Your task to perform on an android device: toggle data saver in the chrome app Image 0: 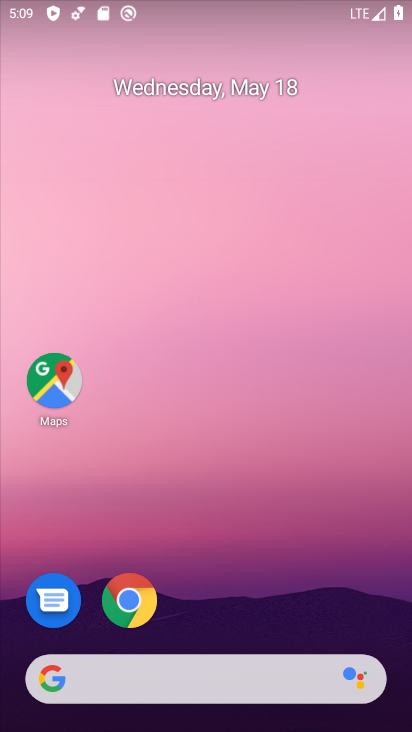
Step 0: click (130, 601)
Your task to perform on an android device: toggle data saver in the chrome app Image 1: 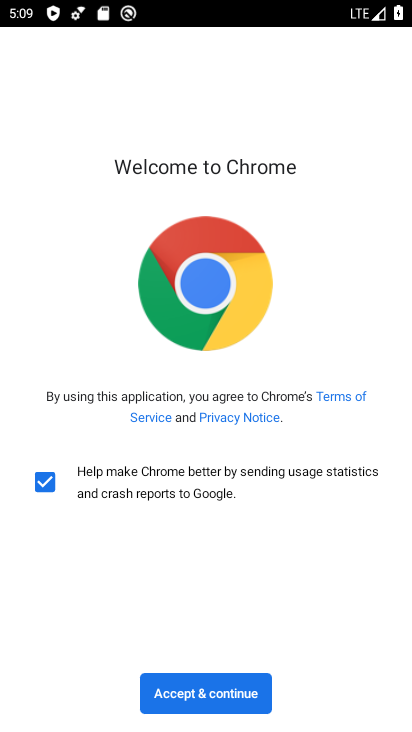
Step 1: click (195, 699)
Your task to perform on an android device: toggle data saver in the chrome app Image 2: 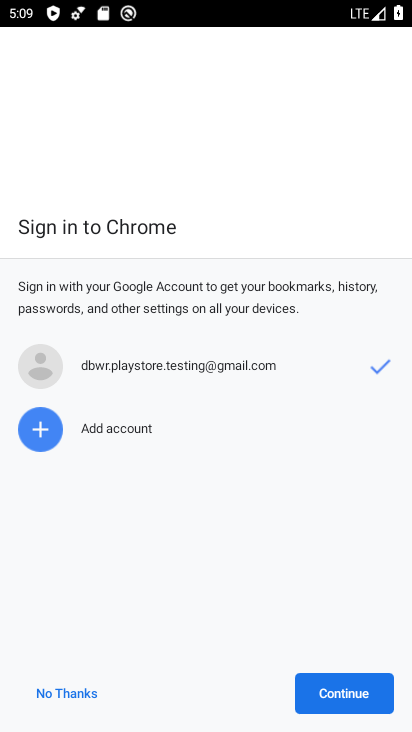
Step 2: click (337, 693)
Your task to perform on an android device: toggle data saver in the chrome app Image 3: 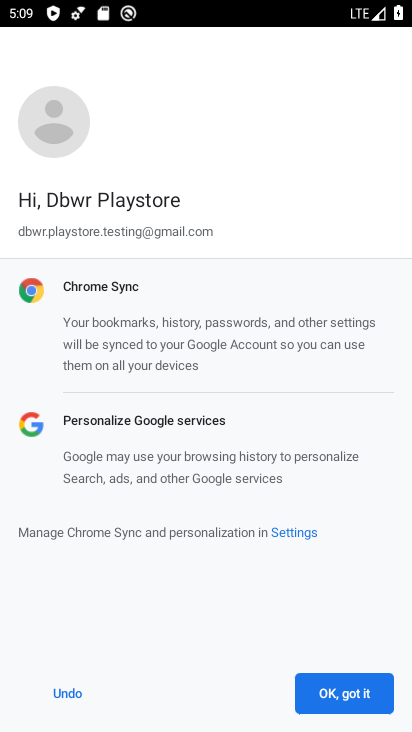
Step 3: click (337, 693)
Your task to perform on an android device: toggle data saver in the chrome app Image 4: 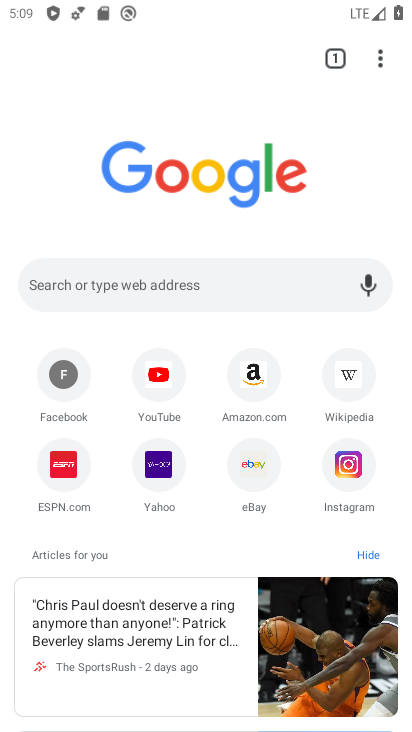
Step 4: click (381, 56)
Your task to perform on an android device: toggle data saver in the chrome app Image 5: 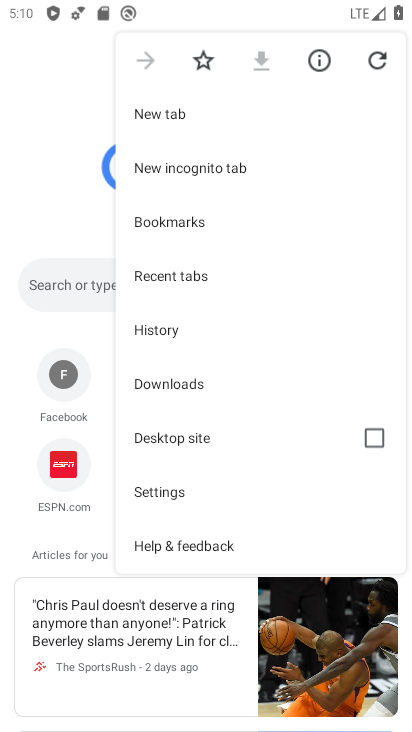
Step 5: click (169, 494)
Your task to perform on an android device: toggle data saver in the chrome app Image 6: 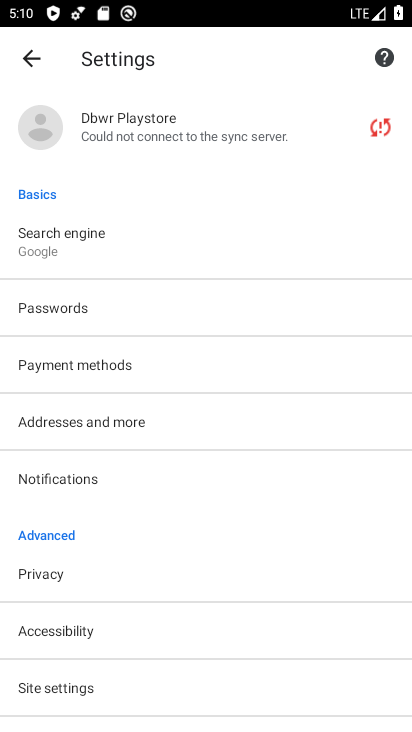
Step 6: drag from (123, 643) to (127, 562)
Your task to perform on an android device: toggle data saver in the chrome app Image 7: 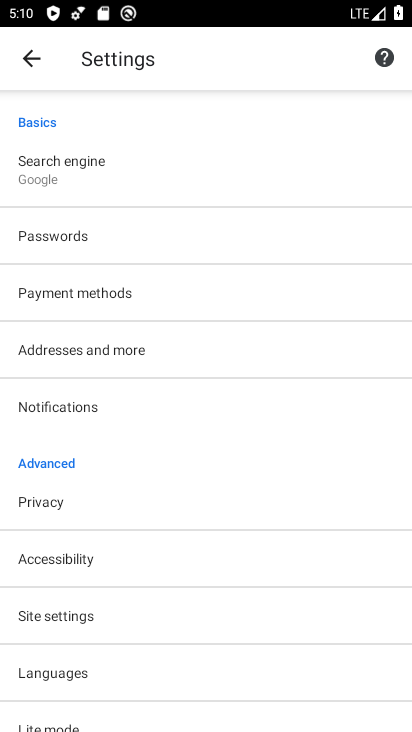
Step 7: drag from (99, 659) to (158, 571)
Your task to perform on an android device: toggle data saver in the chrome app Image 8: 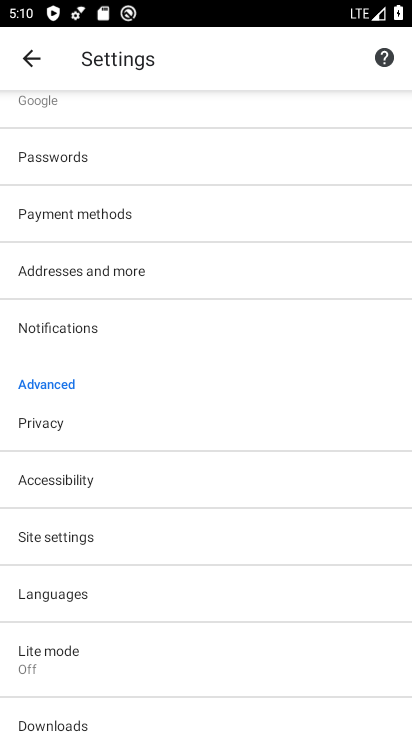
Step 8: click (66, 656)
Your task to perform on an android device: toggle data saver in the chrome app Image 9: 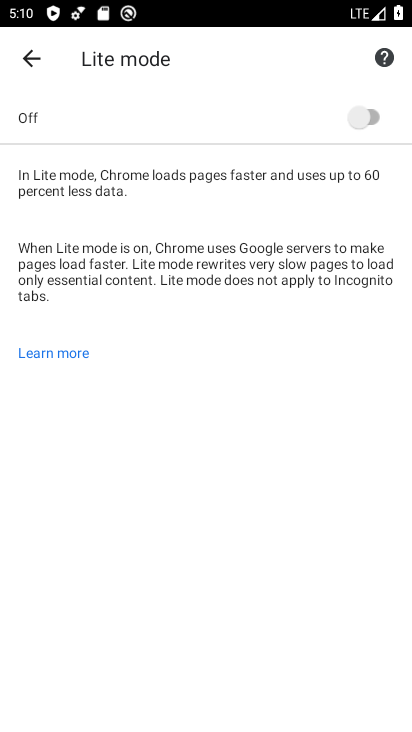
Step 9: click (366, 115)
Your task to perform on an android device: toggle data saver in the chrome app Image 10: 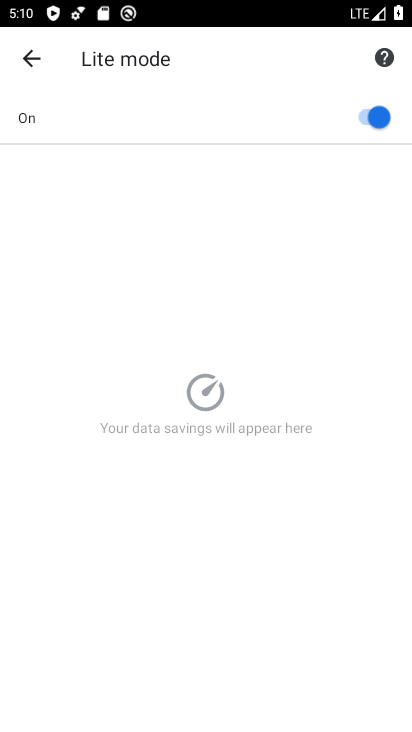
Step 10: task complete